Your task to perform on an android device: check android version Image 0: 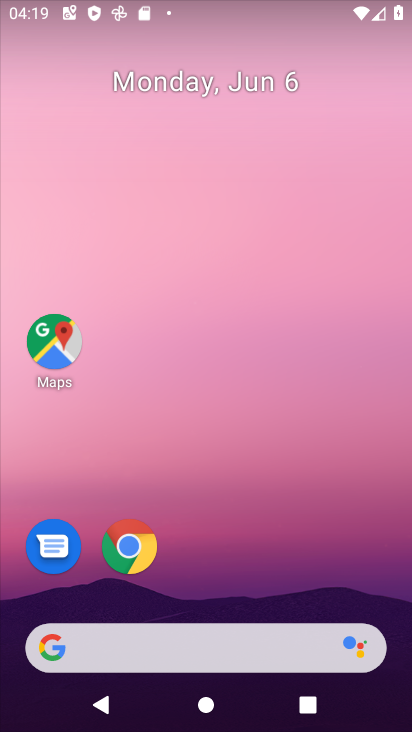
Step 0: drag from (292, 580) to (298, 136)
Your task to perform on an android device: check android version Image 1: 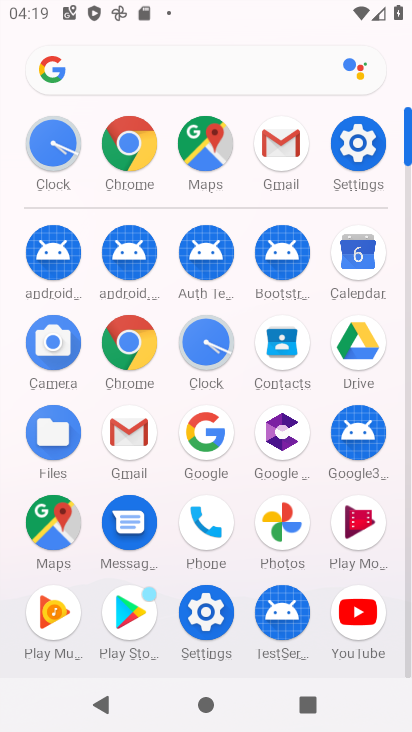
Step 1: click (219, 637)
Your task to perform on an android device: check android version Image 2: 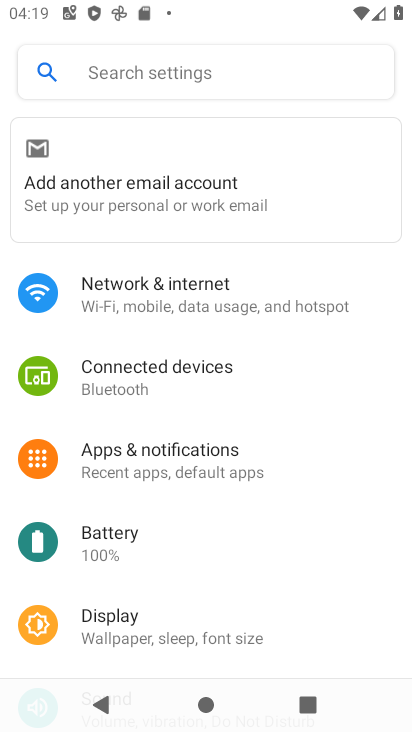
Step 2: task complete